Your task to perform on an android device: star an email in the gmail app Image 0: 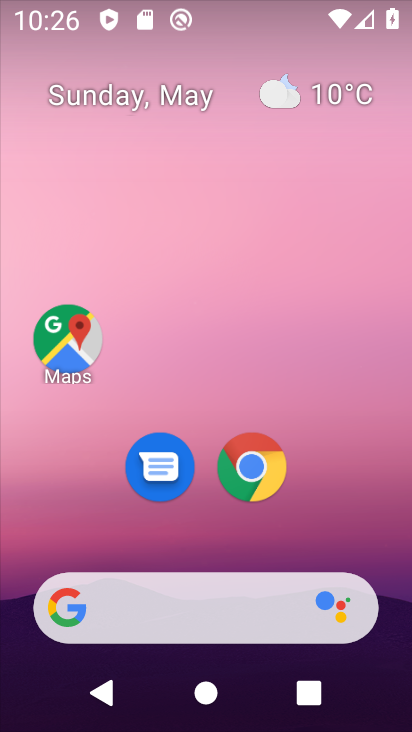
Step 0: drag from (266, 549) to (256, 115)
Your task to perform on an android device: star an email in the gmail app Image 1: 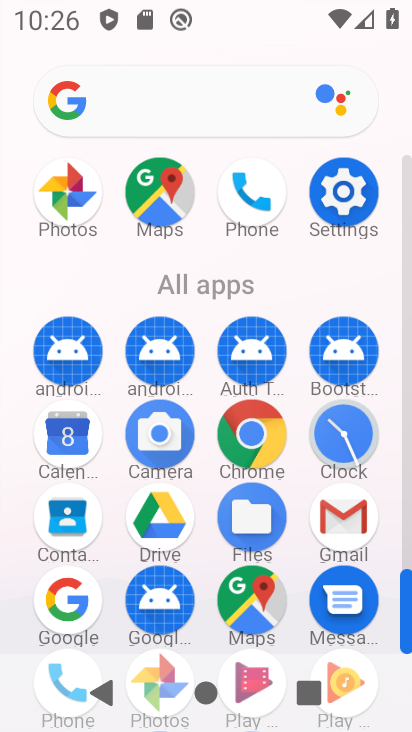
Step 1: click (317, 528)
Your task to perform on an android device: star an email in the gmail app Image 2: 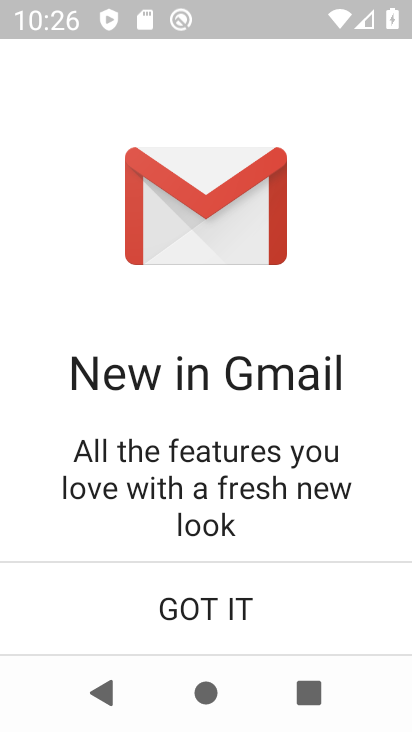
Step 2: click (216, 607)
Your task to perform on an android device: star an email in the gmail app Image 3: 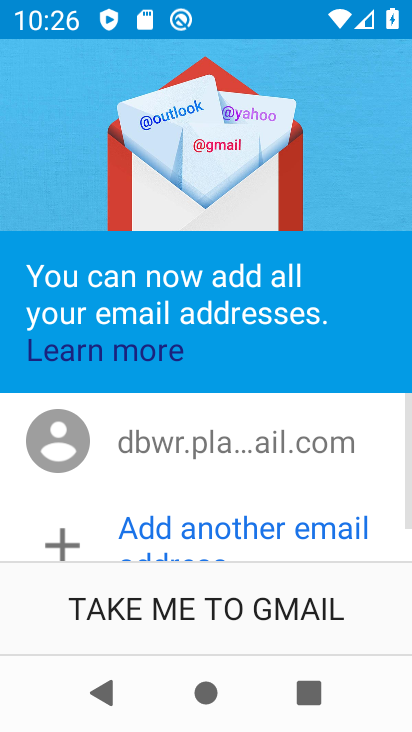
Step 3: click (227, 611)
Your task to perform on an android device: star an email in the gmail app Image 4: 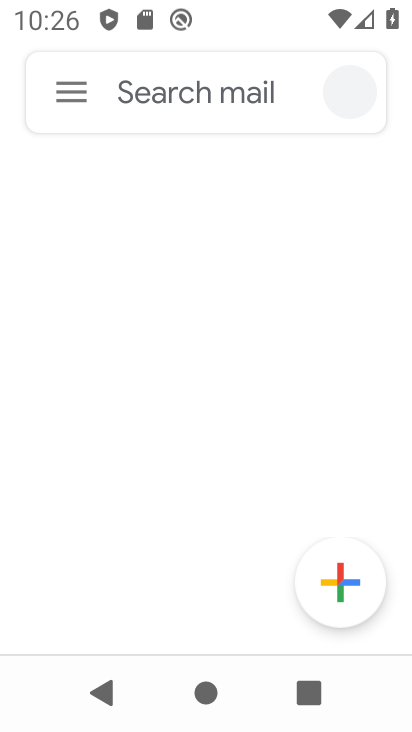
Step 4: click (88, 111)
Your task to perform on an android device: star an email in the gmail app Image 5: 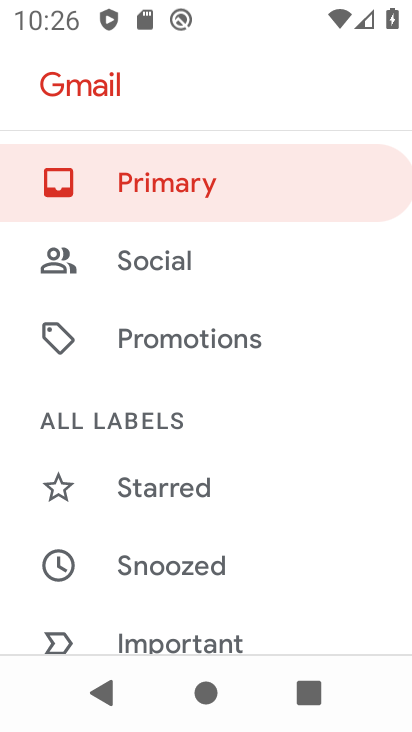
Step 5: drag from (303, 526) to (322, 126)
Your task to perform on an android device: star an email in the gmail app Image 6: 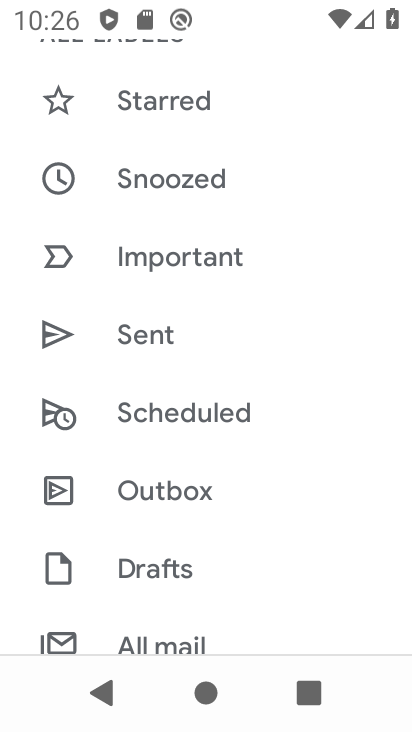
Step 6: drag from (341, 616) to (339, 134)
Your task to perform on an android device: star an email in the gmail app Image 7: 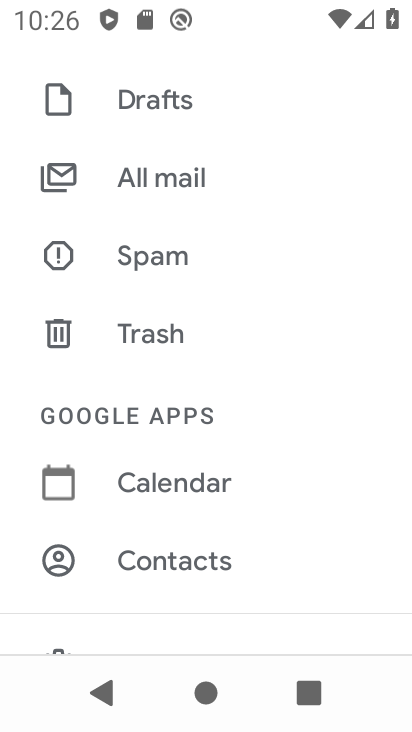
Step 7: click (264, 180)
Your task to perform on an android device: star an email in the gmail app Image 8: 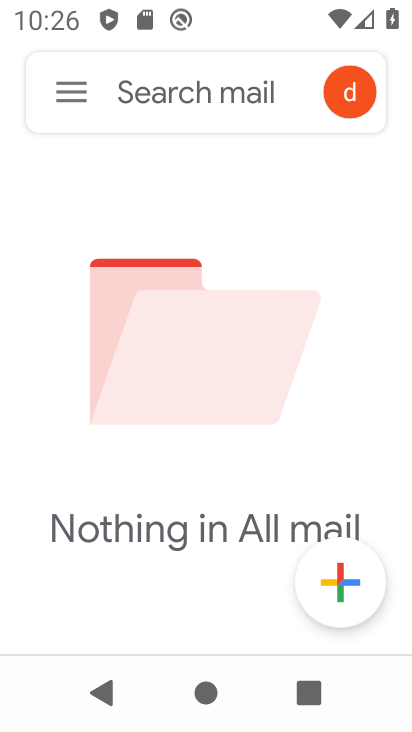
Step 8: task complete